Your task to perform on an android device: search for starred emails in the gmail app Image 0: 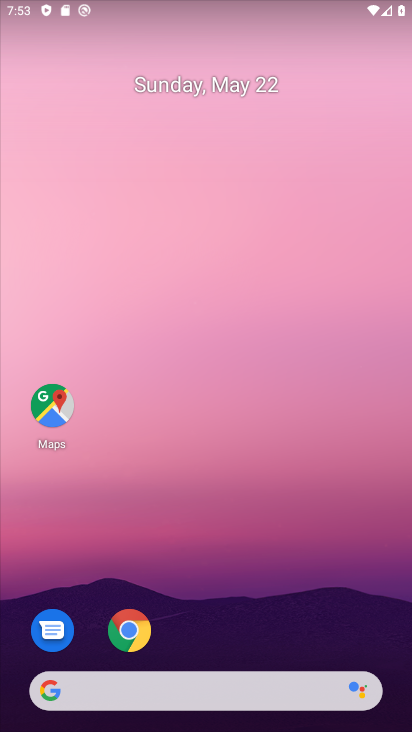
Step 0: click (258, 626)
Your task to perform on an android device: search for starred emails in the gmail app Image 1: 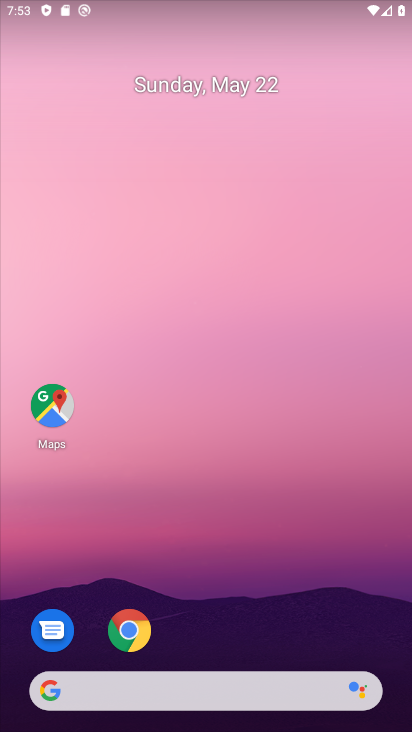
Step 1: drag from (258, 626) to (240, 12)
Your task to perform on an android device: search for starred emails in the gmail app Image 2: 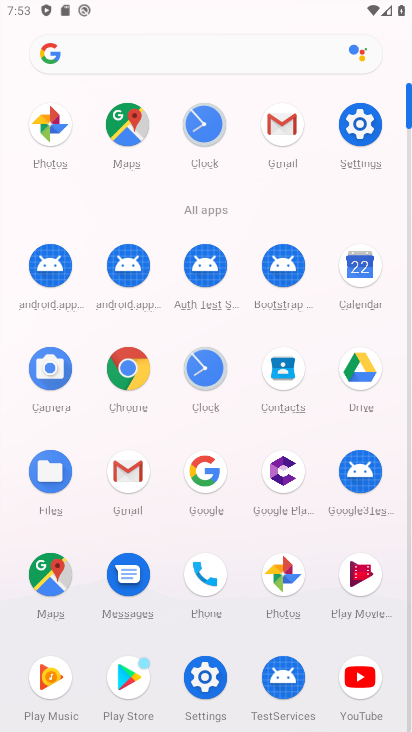
Step 2: click (280, 139)
Your task to perform on an android device: search for starred emails in the gmail app Image 3: 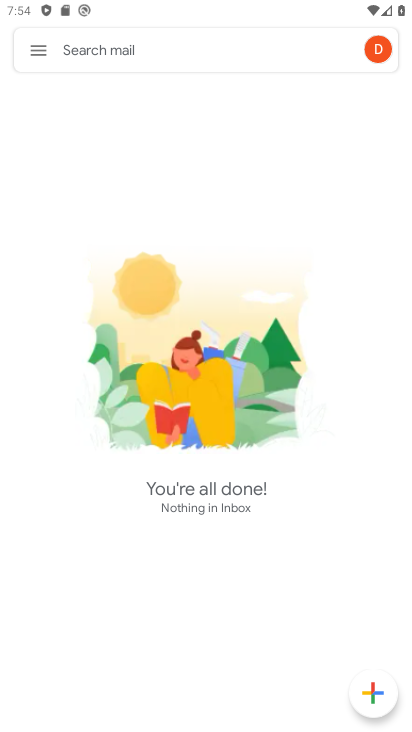
Step 3: click (29, 52)
Your task to perform on an android device: search for starred emails in the gmail app Image 4: 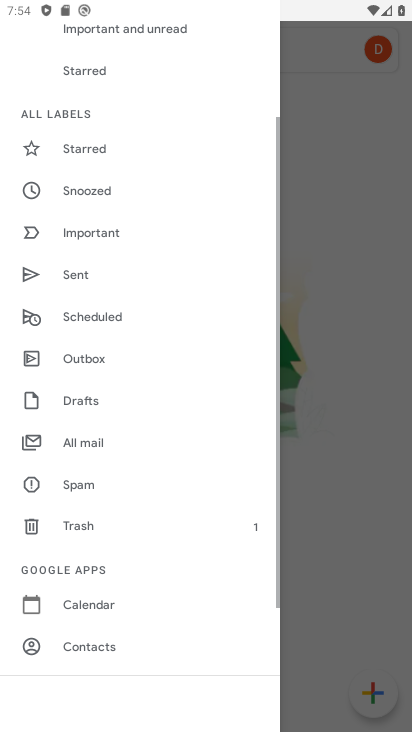
Step 4: click (112, 146)
Your task to perform on an android device: search for starred emails in the gmail app Image 5: 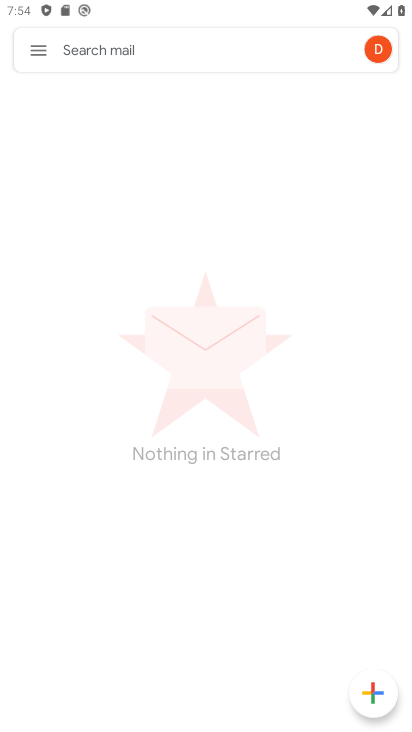
Step 5: task complete